Your task to perform on an android device: toggle sleep mode Image 0: 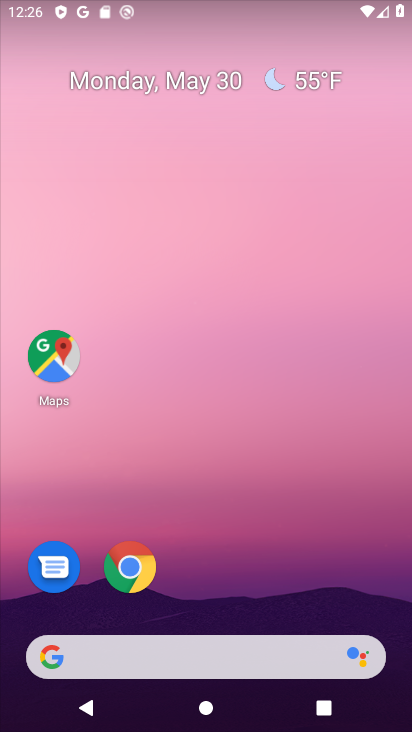
Step 0: drag from (215, 610) to (252, 125)
Your task to perform on an android device: toggle sleep mode Image 1: 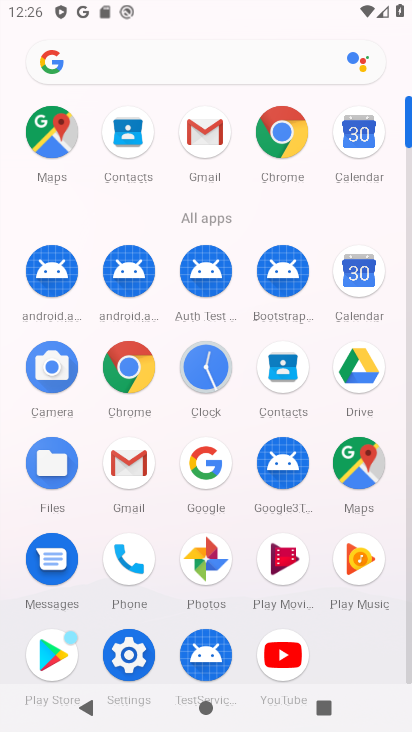
Step 1: click (120, 656)
Your task to perform on an android device: toggle sleep mode Image 2: 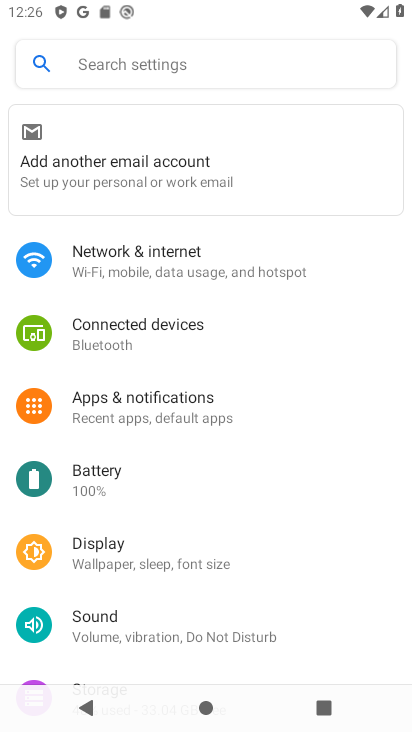
Step 2: click (151, 557)
Your task to perform on an android device: toggle sleep mode Image 3: 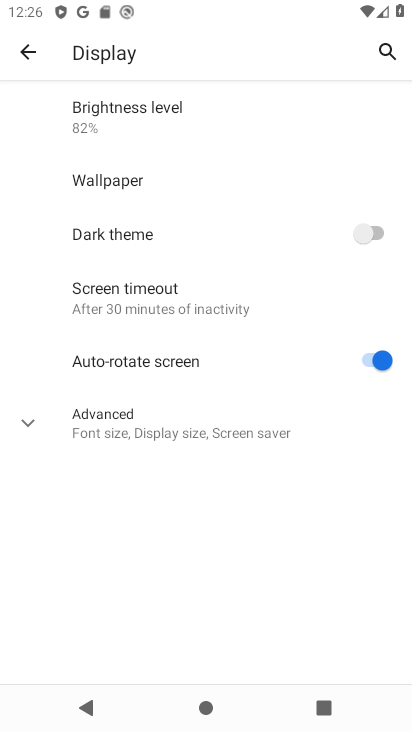
Step 3: click (60, 421)
Your task to perform on an android device: toggle sleep mode Image 4: 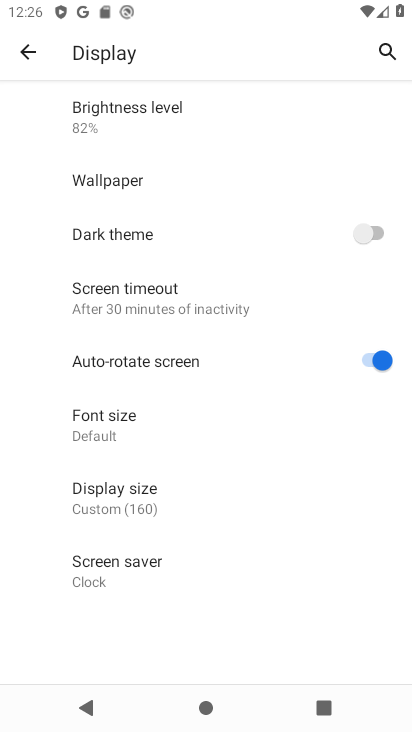
Step 4: task complete